Your task to perform on an android device: check storage Image 0: 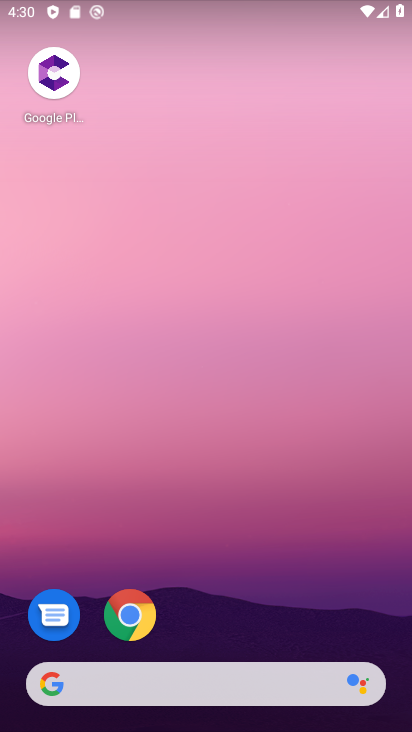
Step 0: drag from (275, 674) to (382, 9)
Your task to perform on an android device: check storage Image 1: 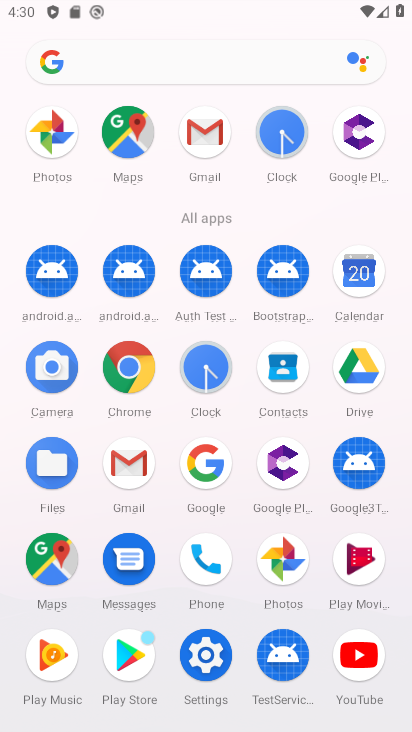
Step 1: click (219, 665)
Your task to perform on an android device: check storage Image 2: 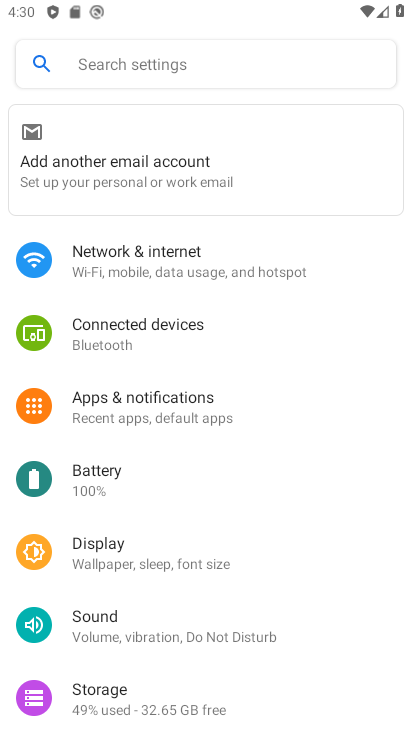
Step 2: drag from (151, 653) to (179, 279)
Your task to perform on an android device: check storage Image 3: 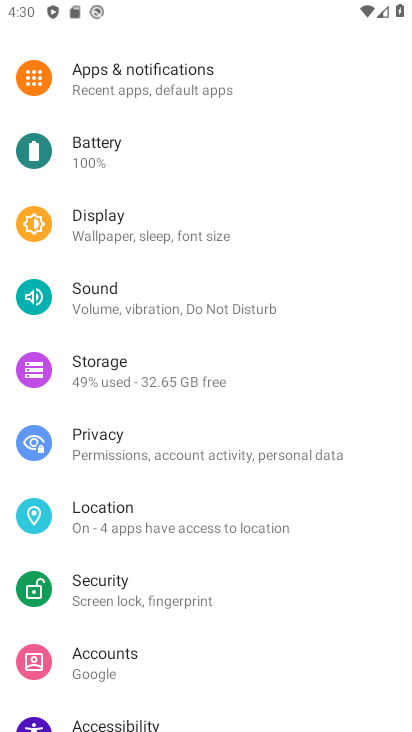
Step 3: click (173, 372)
Your task to perform on an android device: check storage Image 4: 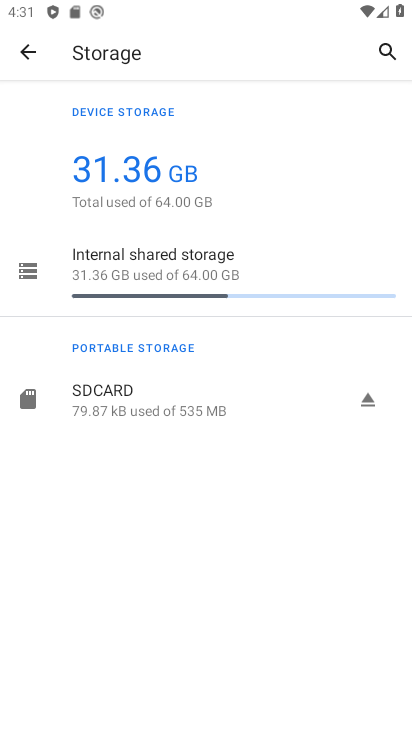
Step 4: task complete